Your task to perform on an android device: delete the emails in spam in the gmail app Image 0: 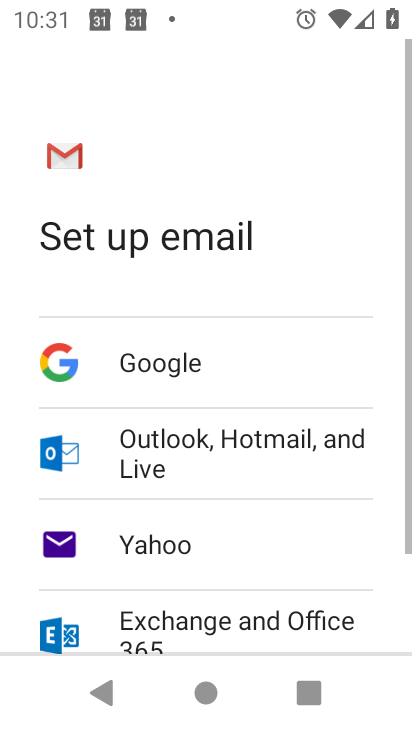
Step 0: press home button
Your task to perform on an android device: delete the emails in spam in the gmail app Image 1: 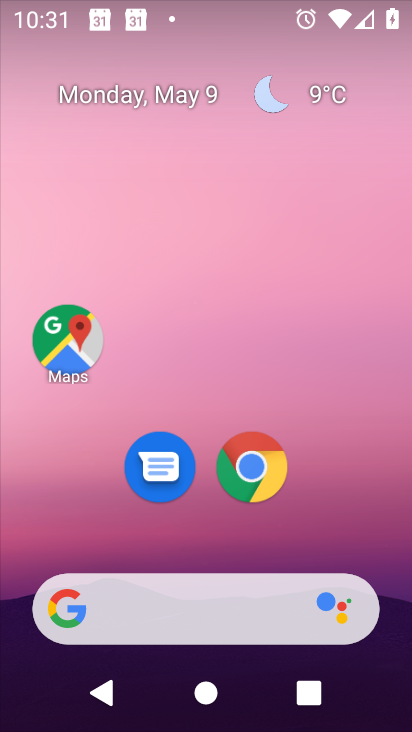
Step 1: drag from (356, 559) to (354, 0)
Your task to perform on an android device: delete the emails in spam in the gmail app Image 2: 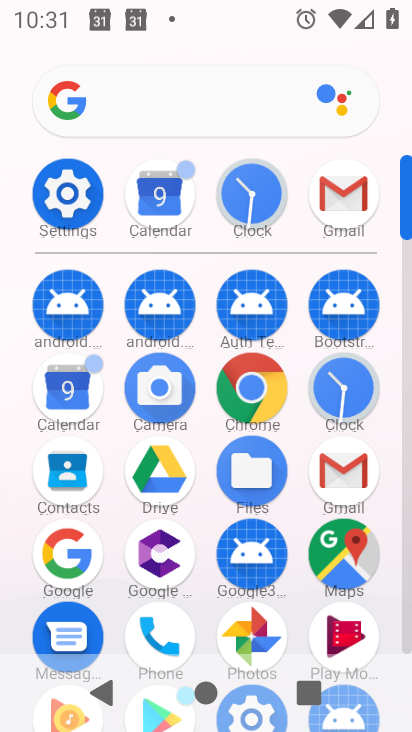
Step 2: click (342, 200)
Your task to perform on an android device: delete the emails in spam in the gmail app Image 3: 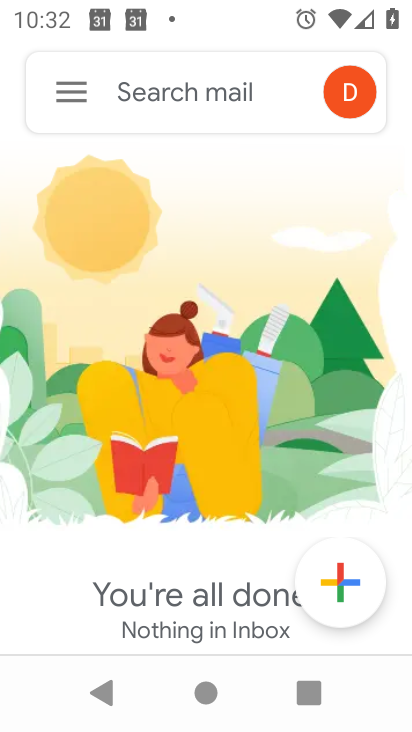
Step 3: click (77, 98)
Your task to perform on an android device: delete the emails in spam in the gmail app Image 4: 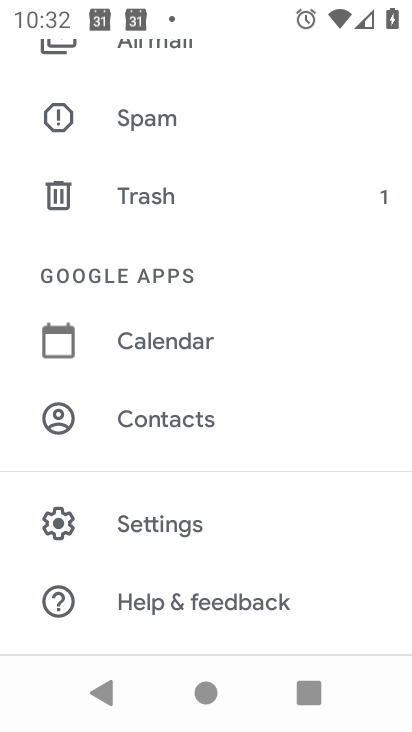
Step 4: click (123, 127)
Your task to perform on an android device: delete the emails in spam in the gmail app Image 5: 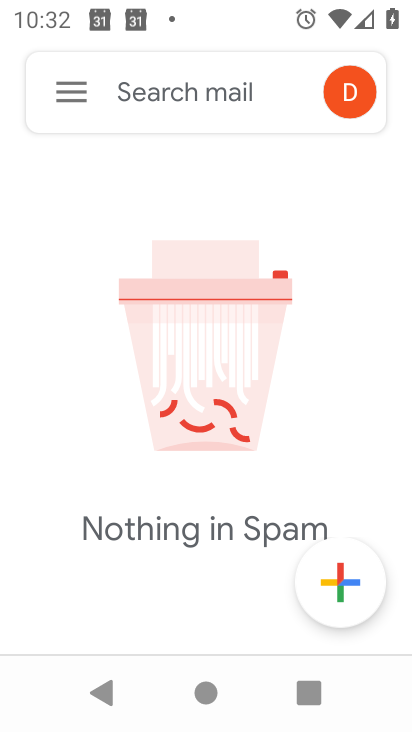
Step 5: task complete